Your task to perform on an android device: remove spam from my inbox in the gmail app Image 0: 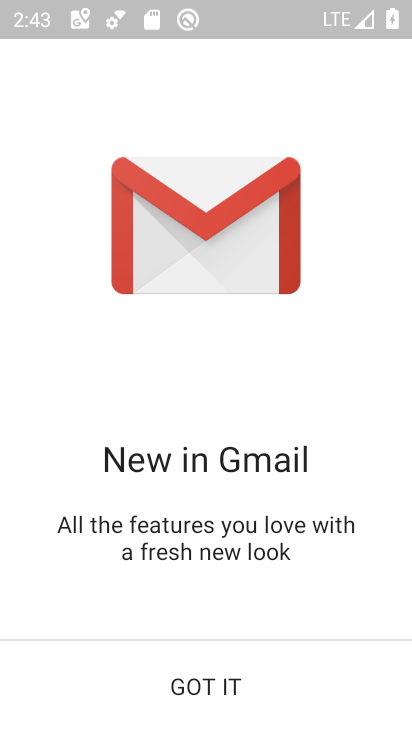
Step 0: click (209, 679)
Your task to perform on an android device: remove spam from my inbox in the gmail app Image 1: 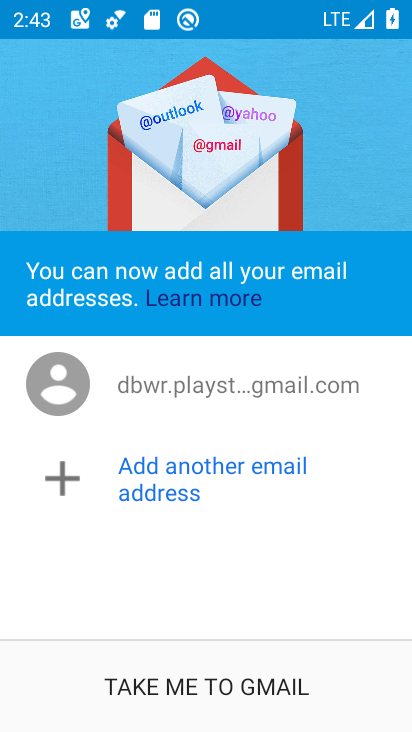
Step 1: click (209, 679)
Your task to perform on an android device: remove spam from my inbox in the gmail app Image 2: 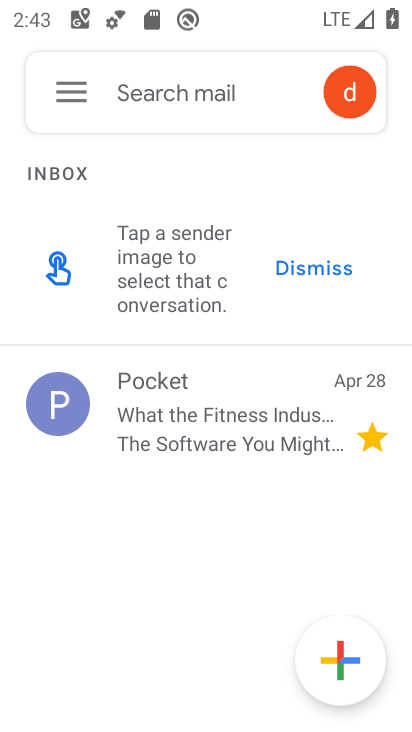
Step 2: click (67, 80)
Your task to perform on an android device: remove spam from my inbox in the gmail app Image 3: 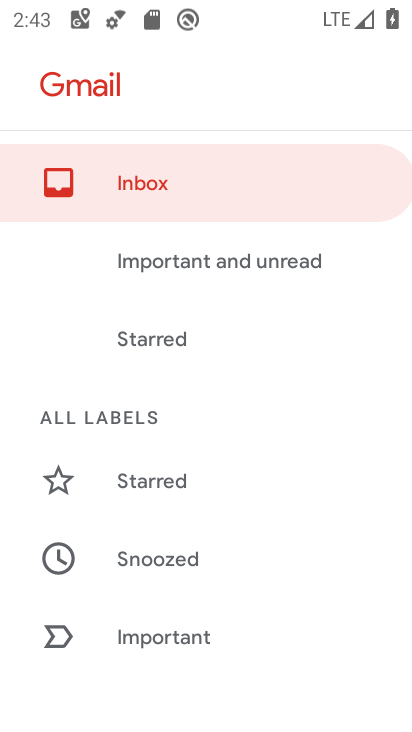
Step 3: drag from (291, 680) to (288, 413)
Your task to perform on an android device: remove spam from my inbox in the gmail app Image 4: 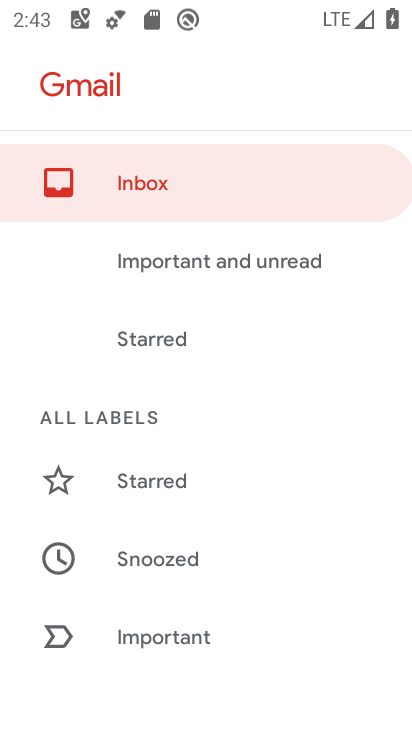
Step 4: drag from (325, 661) to (334, 299)
Your task to perform on an android device: remove spam from my inbox in the gmail app Image 5: 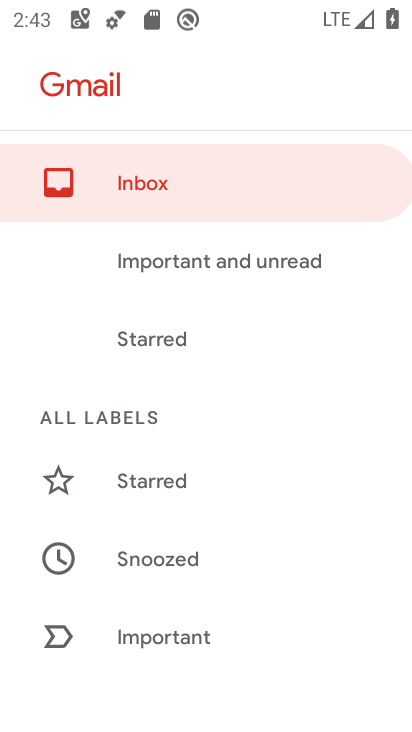
Step 5: drag from (314, 632) to (295, 264)
Your task to perform on an android device: remove spam from my inbox in the gmail app Image 6: 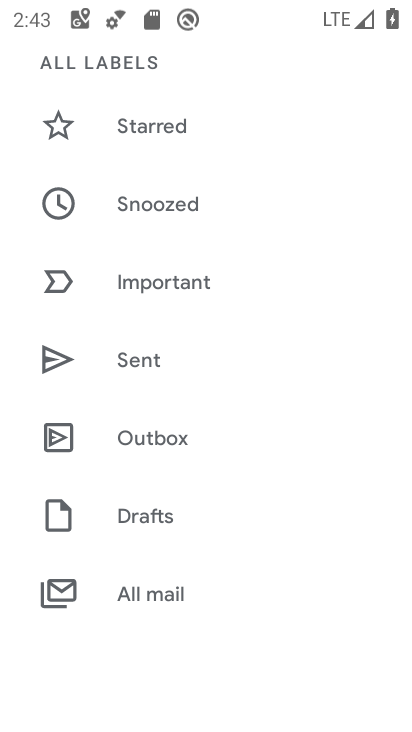
Step 6: drag from (271, 596) to (288, 307)
Your task to perform on an android device: remove spam from my inbox in the gmail app Image 7: 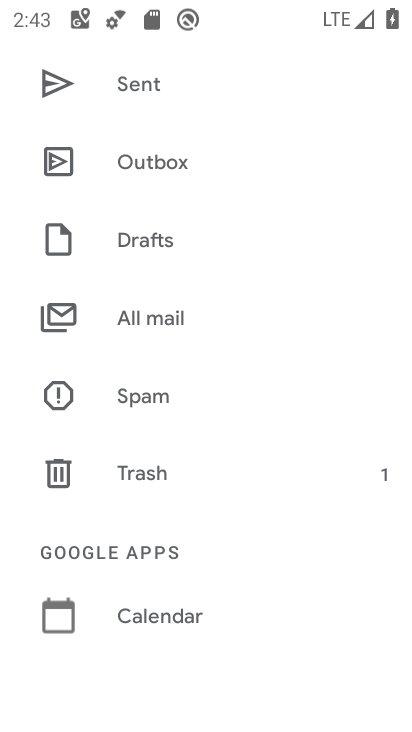
Step 7: click (145, 398)
Your task to perform on an android device: remove spam from my inbox in the gmail app Image 8: 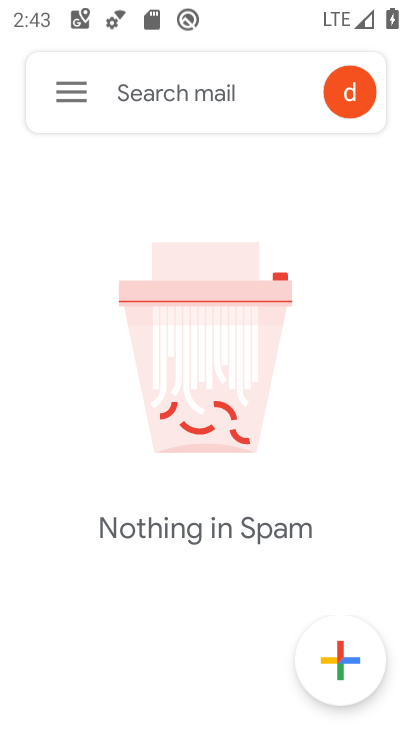
Step 8: task complete